Your task to perform on an android device: Check the news Image 0: 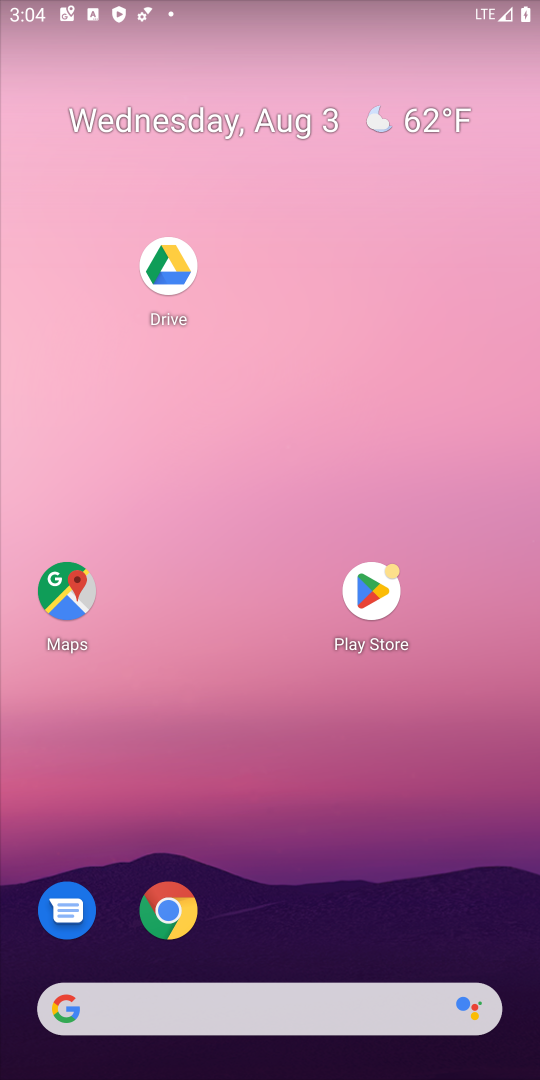
Step 0: drag from (396, 378) to (455, 43)
Your task to perform on an android device: Check the news Image 1: 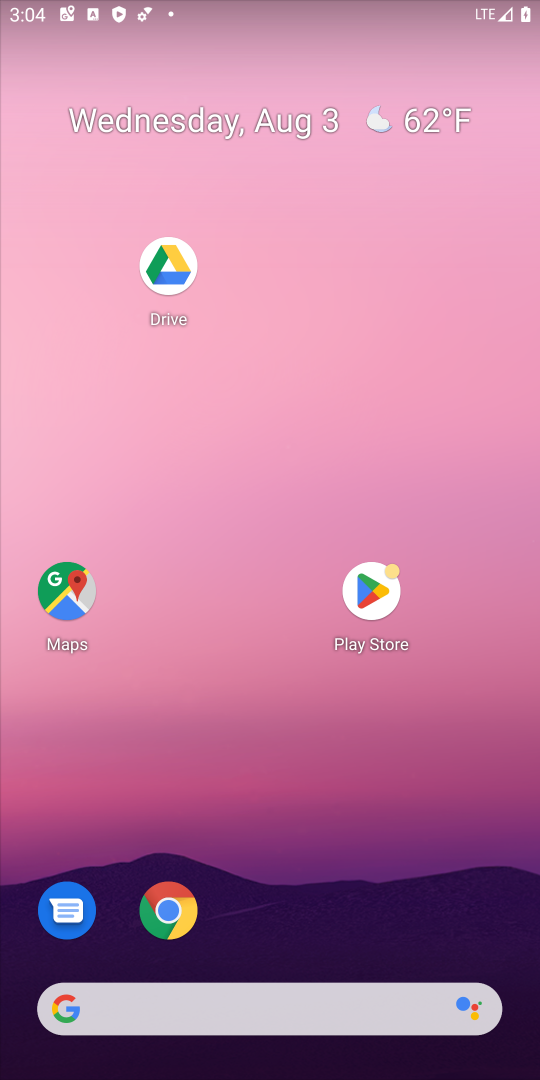
Step 1: drag from (284, 878) to (357, 2)
Your task to perform on an android device: Check the news Image 2: 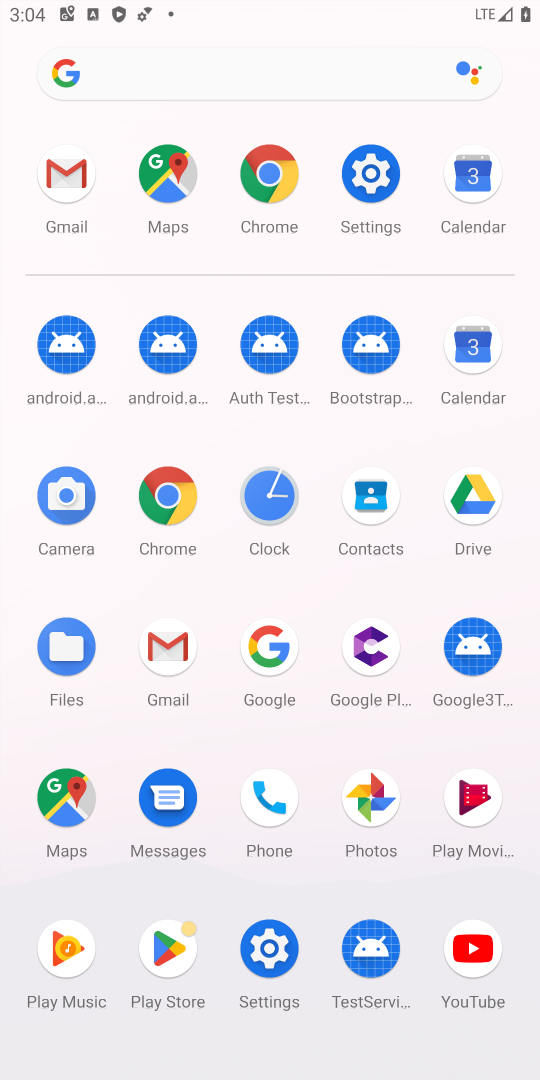
Step 2: click (166, 482)
Your task to perform on an android device: Check the news Image 3: 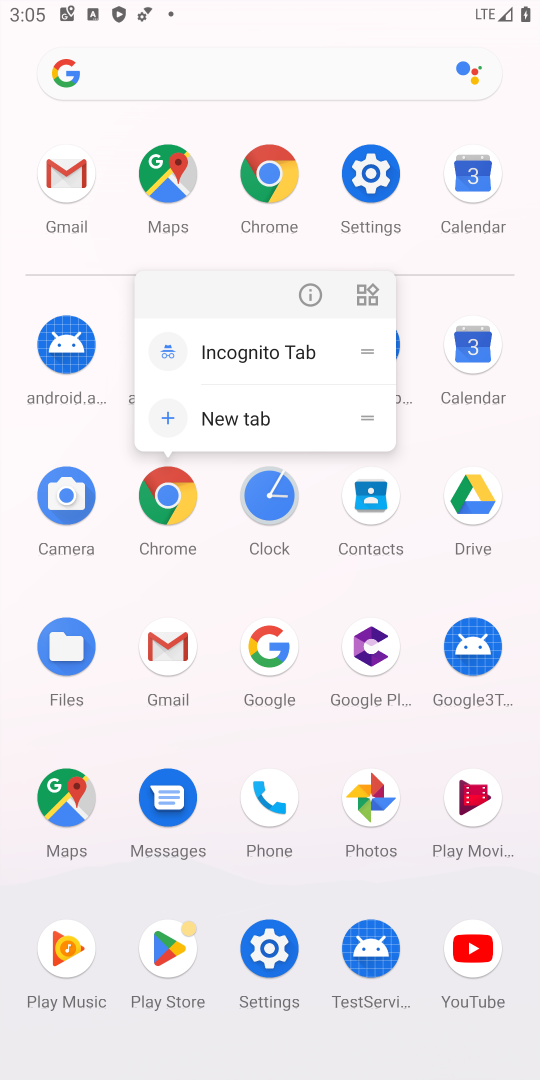
Step 3: click (177, 501)
Your task to perform on an android device: Check the news Image 4: 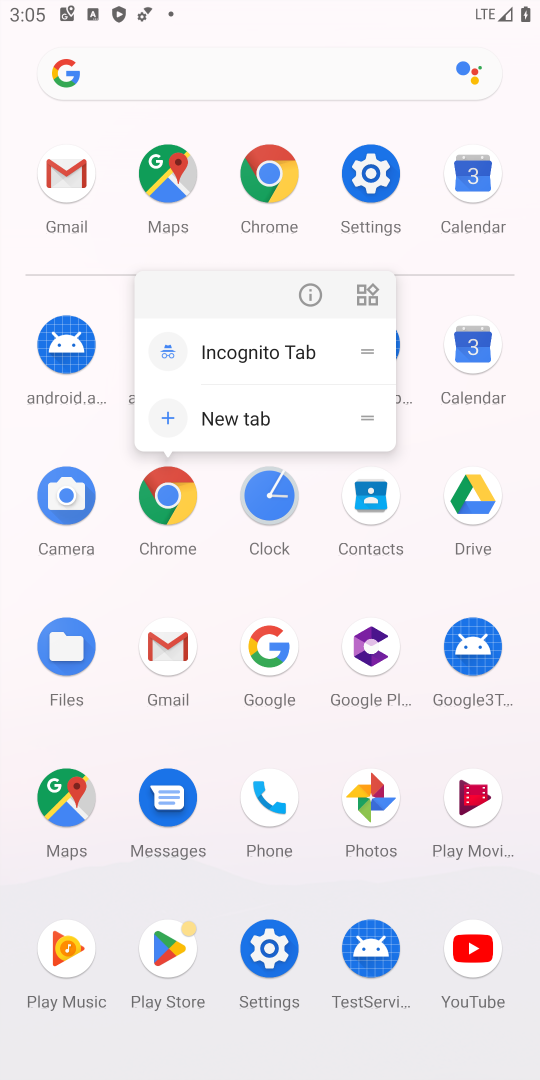
Step 4: click (166, 495)
Your task to perform on an android device: Check the news Image 5: 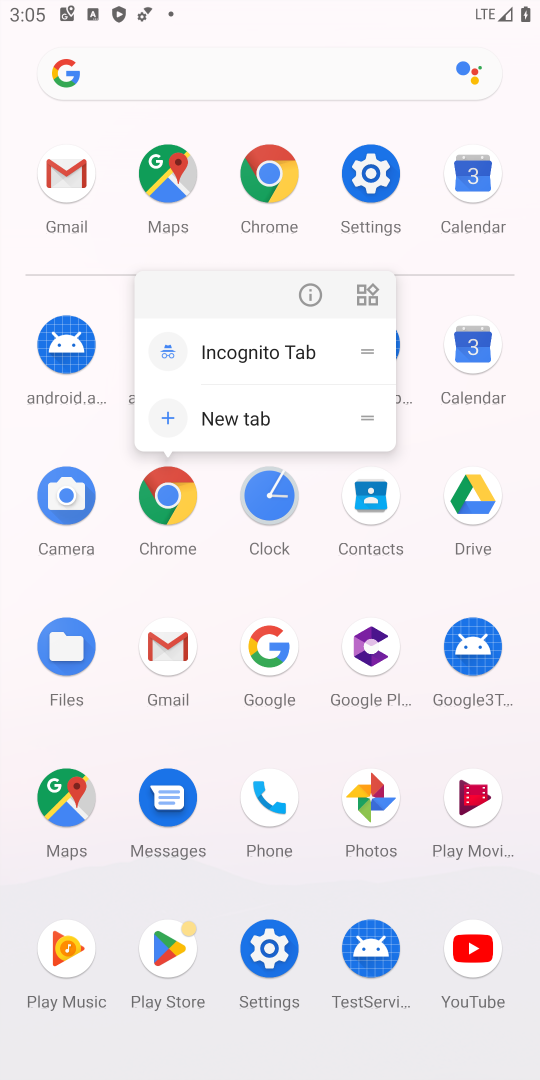
Step 5: click (165, 495)
Your task to perform on an android device: Check the news Image 6: 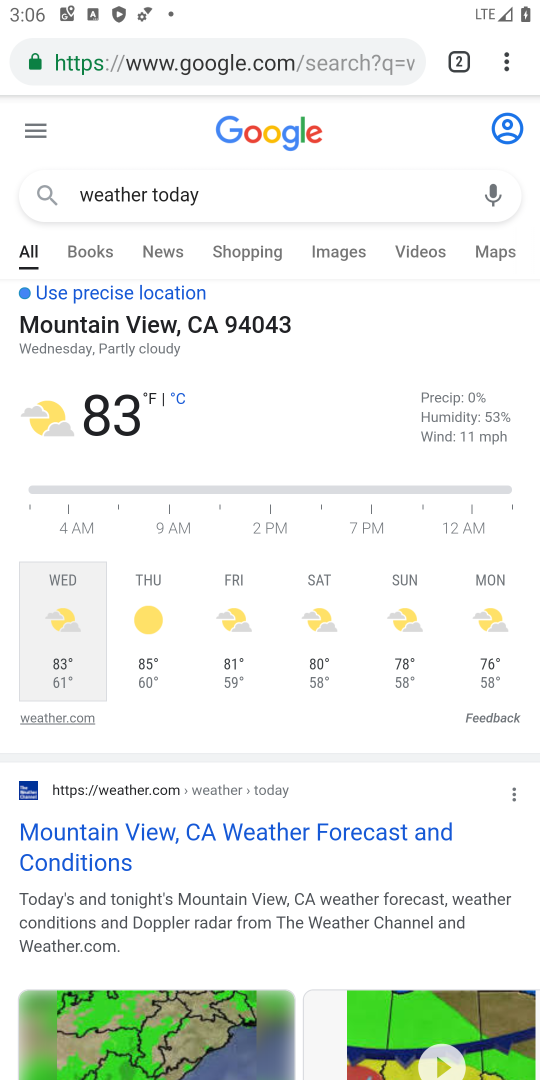
Step 6: click (307, 50)
Your task to perform on an android device: Check the news Image 7: 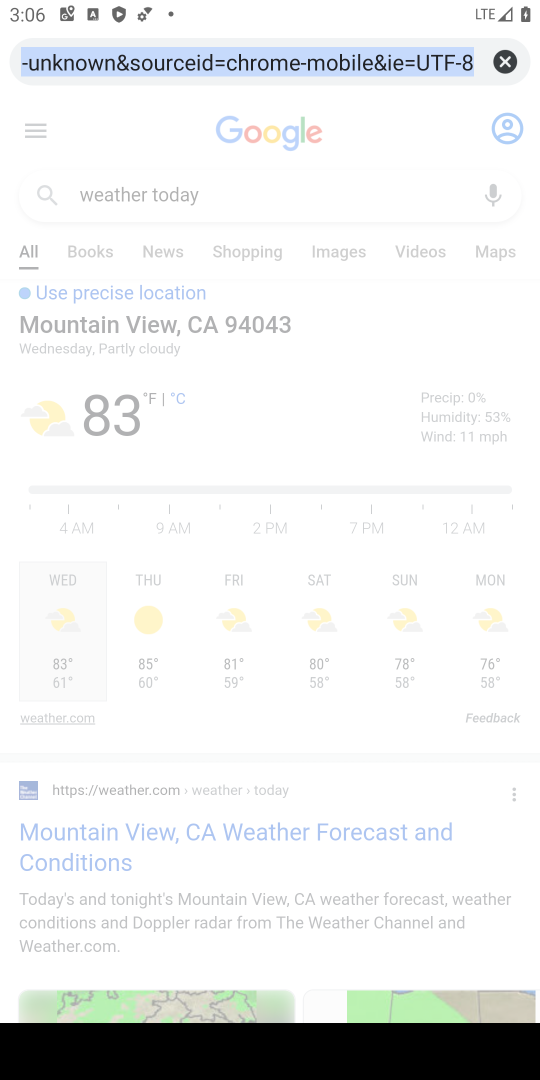
Step 7: click (503, 51)
Your task to perform on an android device: Check the news Image 8: 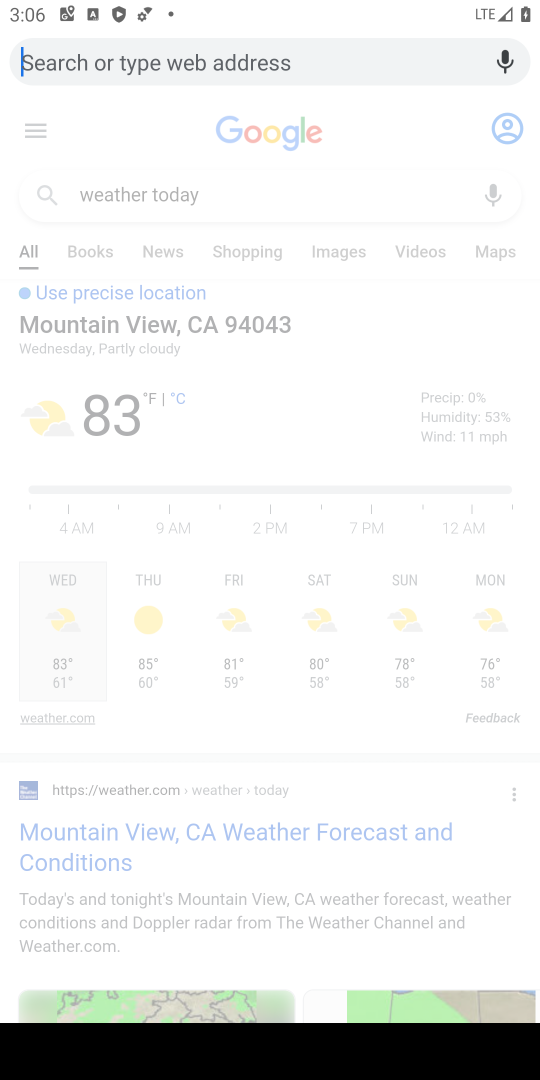
Step 8: type "check the news"
Your task to perform on an android device: Check the news Image 9: 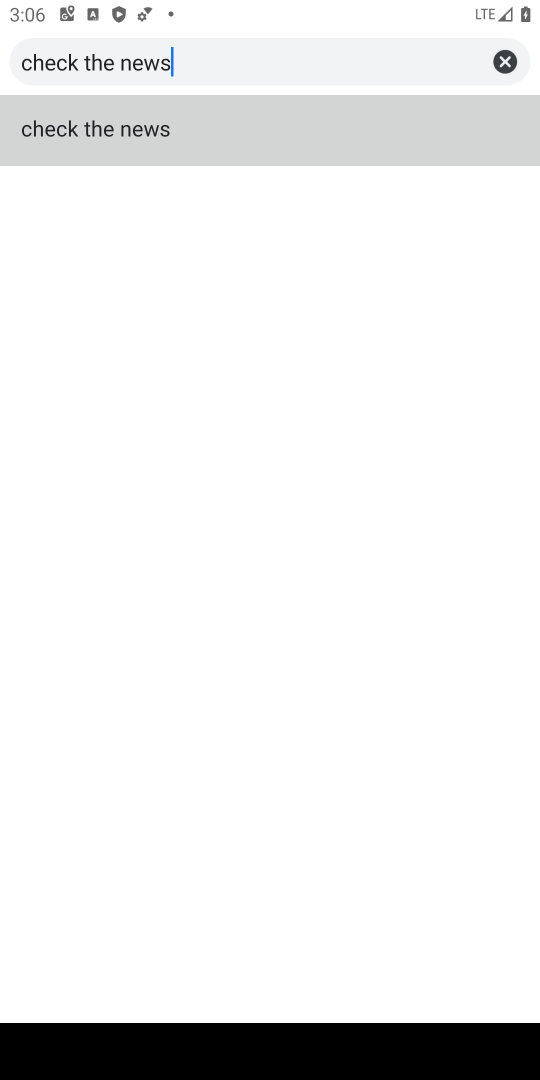
Step 9: click (104, 113)
Your task to perform on an android device: Check the news Image 10: 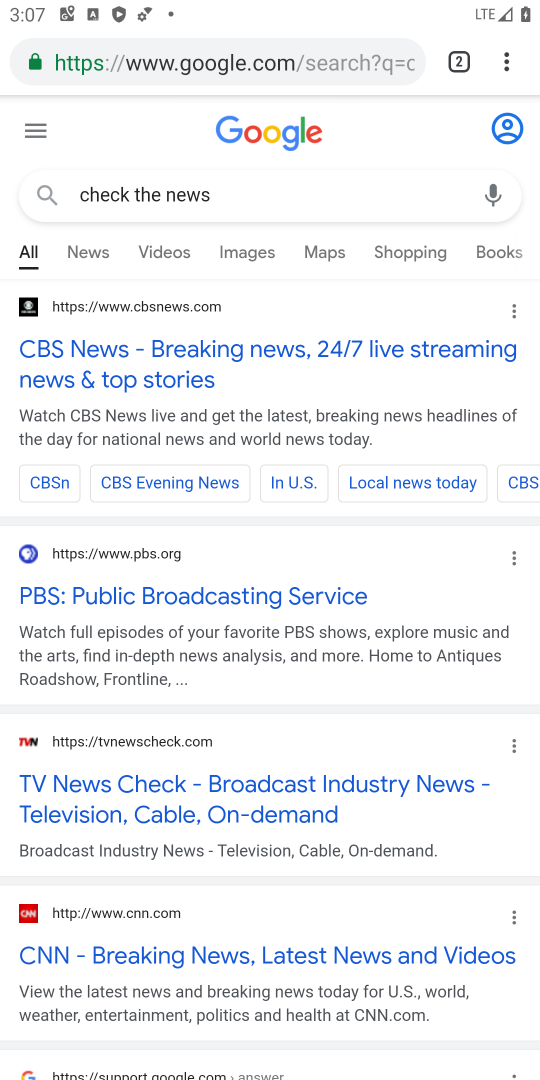
Step 10: task complete